Your task to perform on an android device: Open notification settings Image 0: 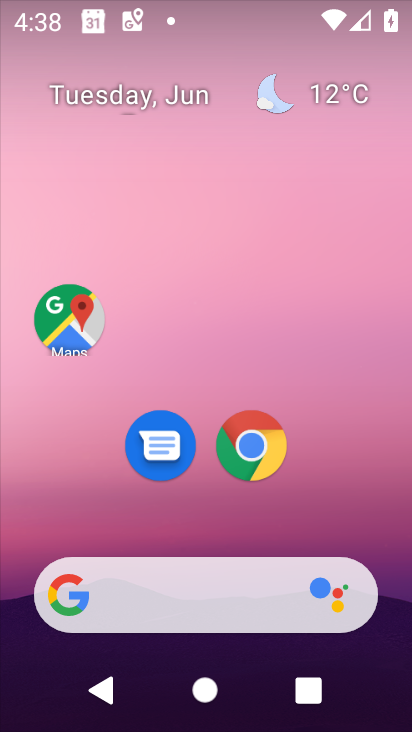
Step 0: drag from (336, 519) to (374, 3)
Your task to perform on an android device: Open notification settings Image 1: 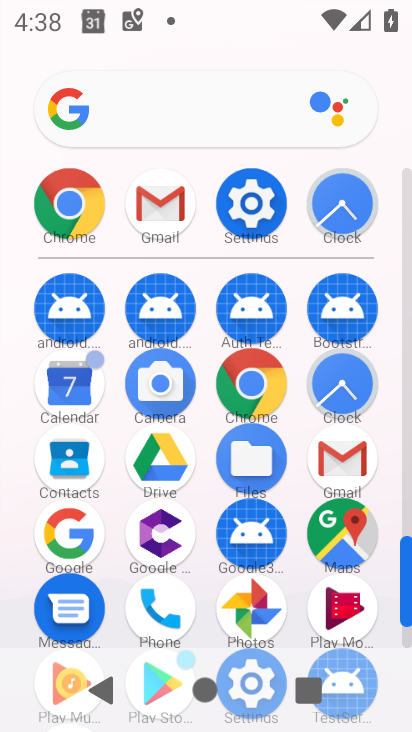
Step 1: click (249, 191)
Your task to perform on an android device: Open notification settings Image 2: 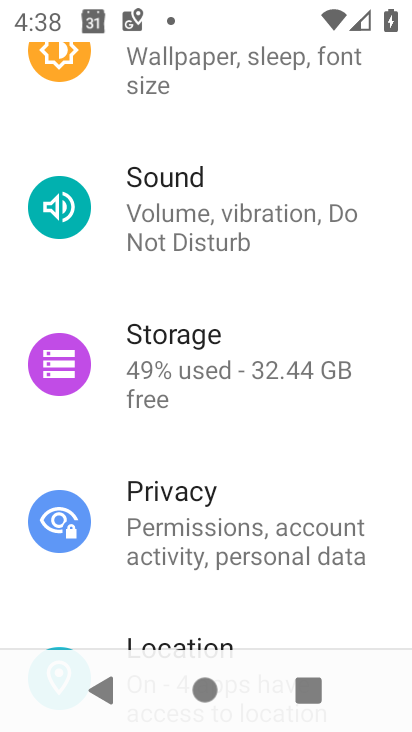
Step 2: drag from (260, 146) to (245, 607)
Your task to perform on an android device: Open notification settings Image 3: 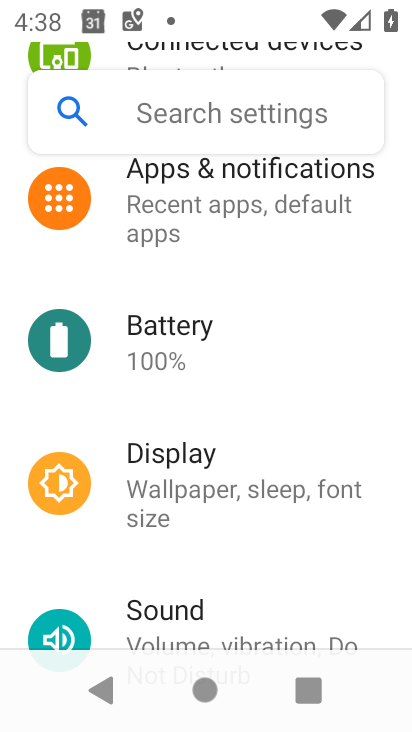
Step 3: drag from (257, 178) to (235, 646)
Your task to perform on an android device: Open notification settings Image 4: 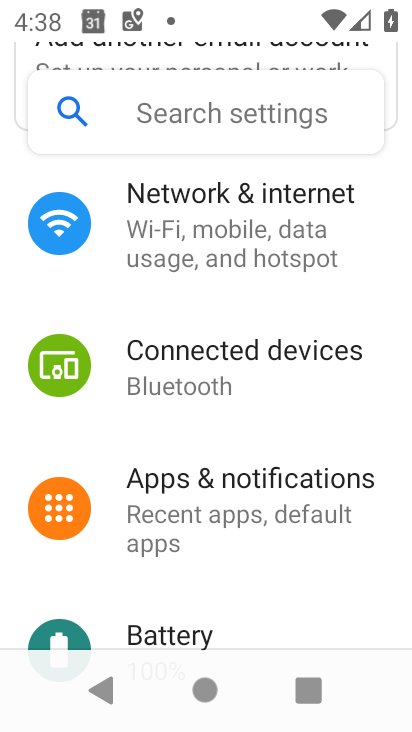
Step 4: click (271, 507)
Your task to perform on an android device: Open notification settings Image 5: 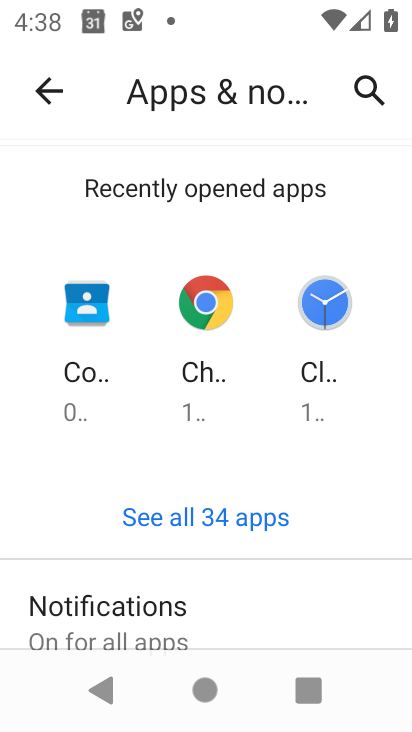
Step 5: drag from (264, 537) to (304, 89)
Your task to perform on an android device: Open notification settings Image 6: 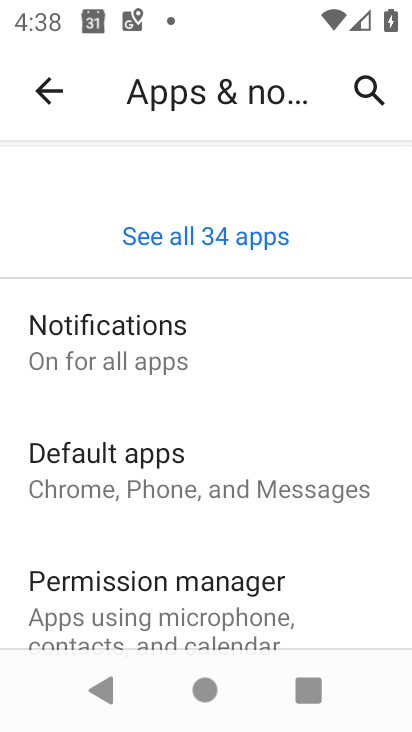
Step 6: click (119, 337)
Your task to perform on an android device: Open notification settings Image 7: 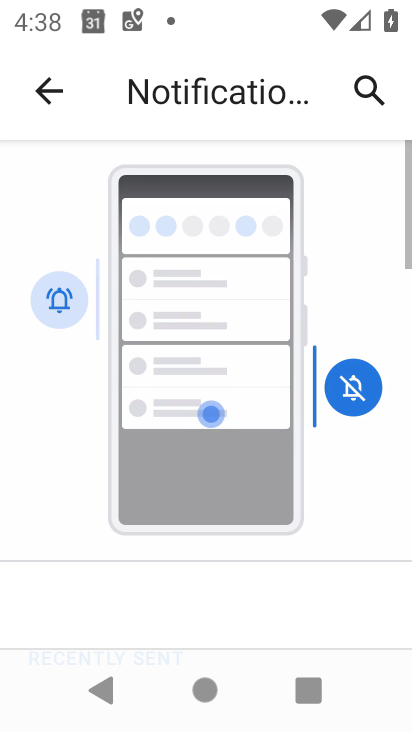
Step 7: task complete